Your task to perform on an android device: What's on my calendar tomorrow? Image 0: 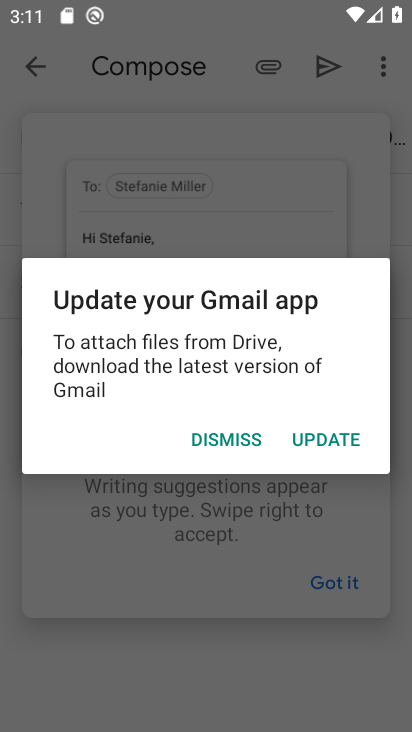
Step 0: press home button
Your task to perform on an android device: What's on my calendar tomorrow? Image 1: 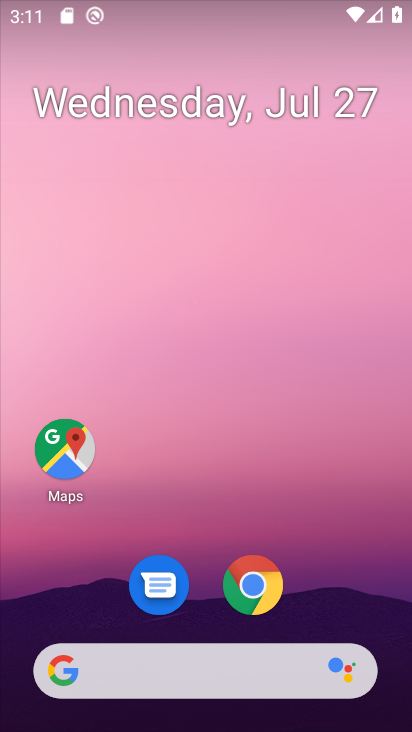
Step 1: drag from (348, 598) to (314, 119)
Your task to perform on an android device: What's on my calendar tomorrow? Image 2: 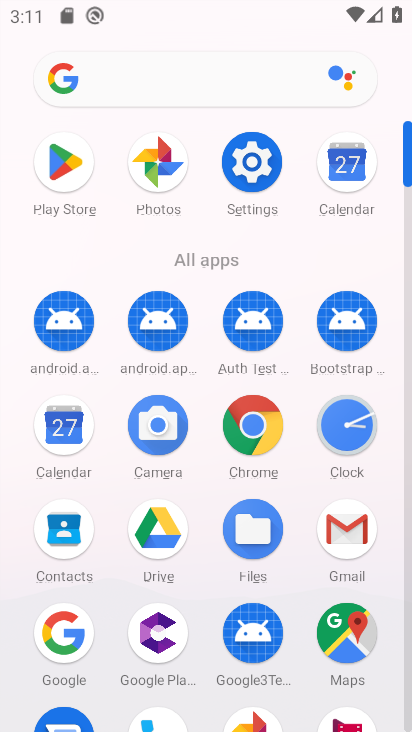
Step 2: click (76, 431)
Your task to perform on an android device: What's on my calendar tomorrow? Image 3: 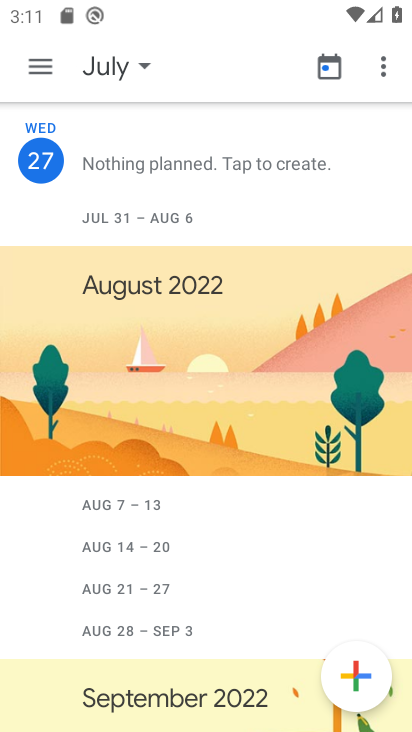
Step 3: click (39, 56)
Your task to perform on an android device: What's on my calendar tomorrow? Image 4: 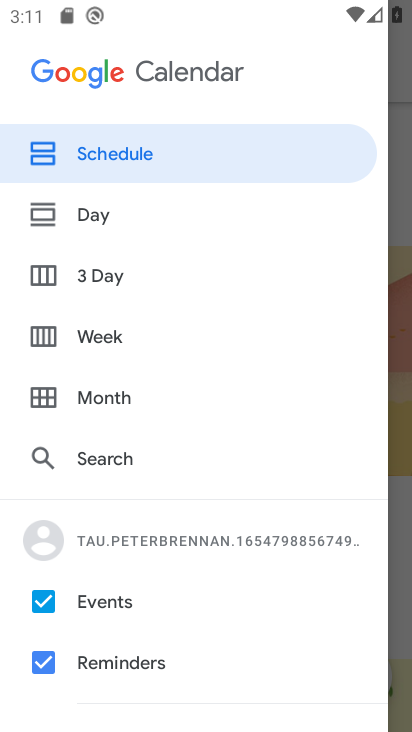
Step 4: click (49, 334)
Your task to perform on an android device: What's on my calendar tomorrow? Image 5: 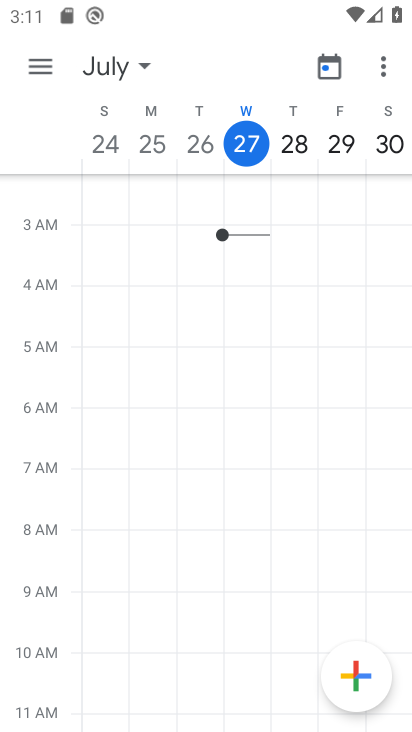
Step 5: task complete